Your task to perform on an android device: Do I have any events today? Image 0: 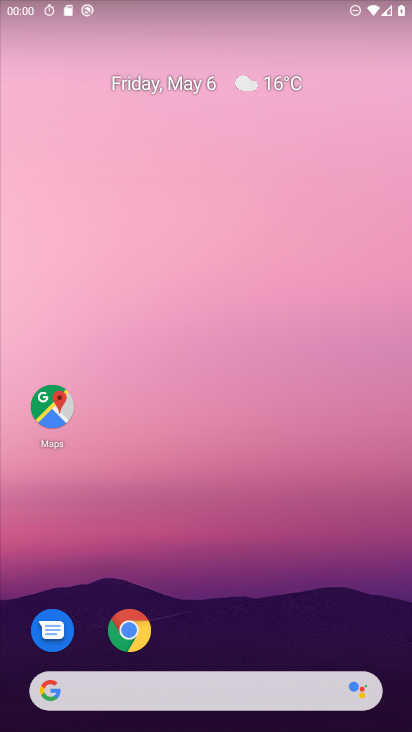
Step 0: drag from (247, 581) to (225, 102)
Your task to perform on an android device: Do I have any events today? Image 1: 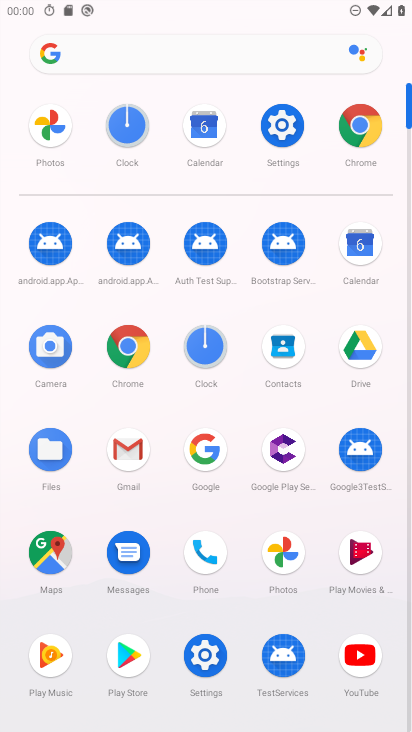
Step 1: click (363, 244)
Your task to perform on an android device: Do I have any events today? Image 2: 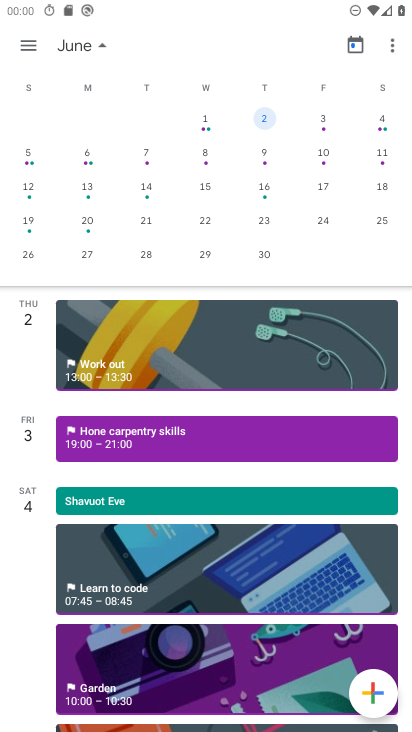
Step 2: drag from (38, 187) to (411, 173)
Your task to perform on an android device: Do I have any events today? Image 3: 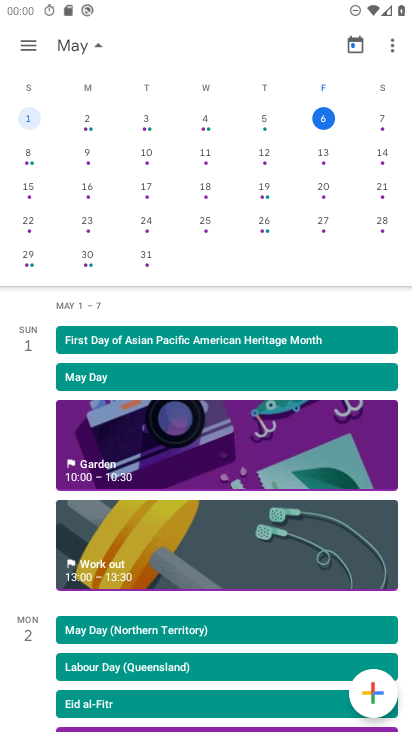
Step 3: click (268, 119)
Your task to perform on an android device: Do I have any events today? Image 4: 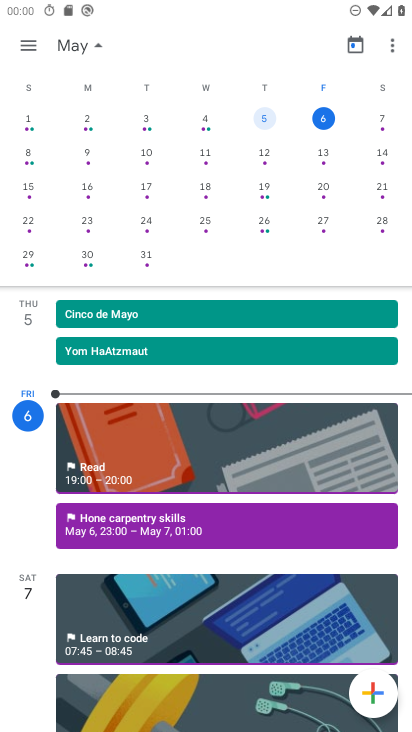
Step 4: task complete